Your task to perform on an android device: Go to CNN.com Image 0: 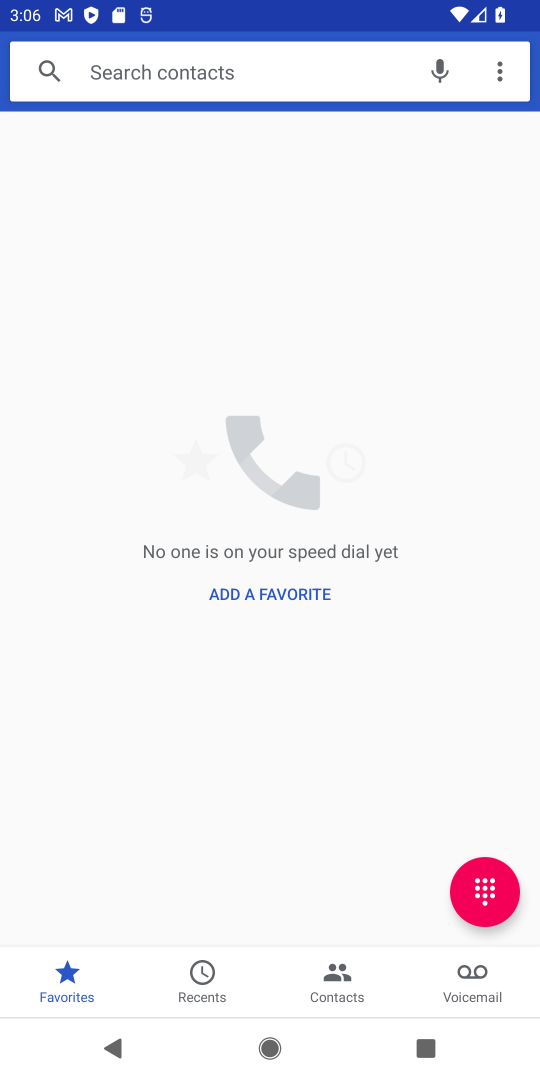
Step 0: press home button
Your task to perform on an android device: Go to CNN.com Image 1: 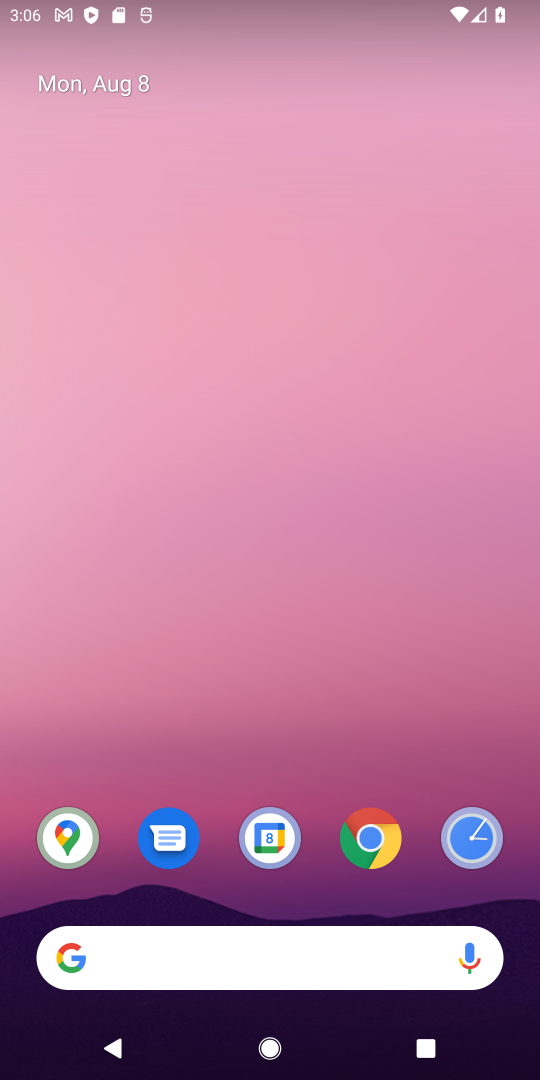
Step 1: click (364, 842)
Your task to perform on an android device: Go to CNN.com Image 2: 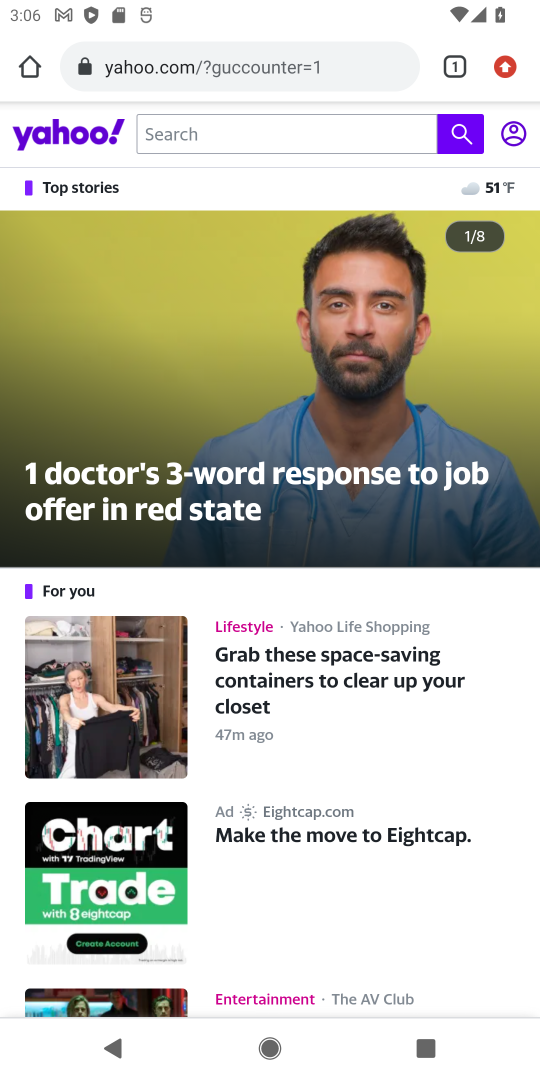
Step 2: click (299, 70)
Your task to perform on an android device: Go to CNN.com Image 3: 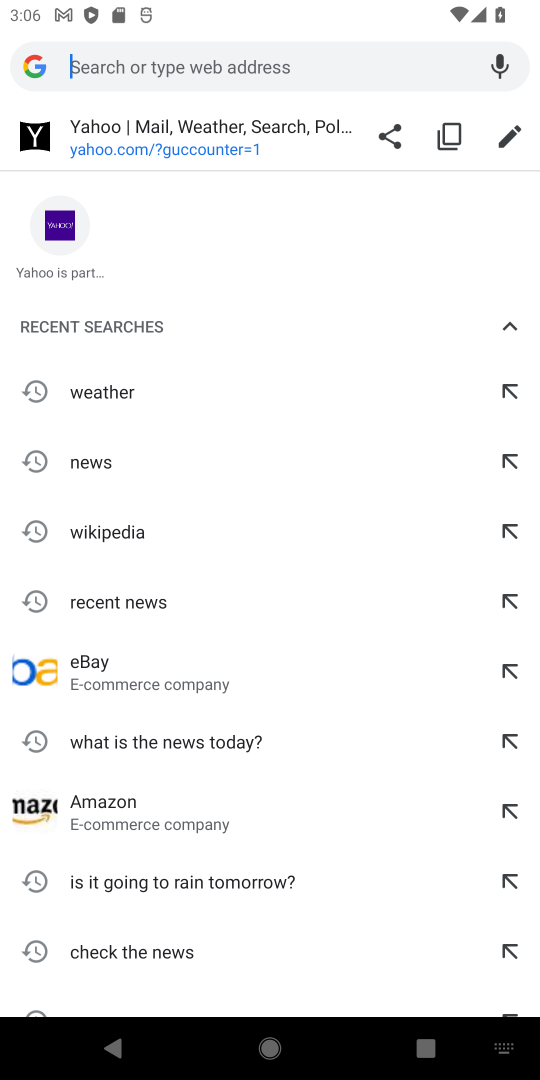
Step 3: type "CNN.com"
Your task to perform on an android device: Go to CNN.com Image 4: 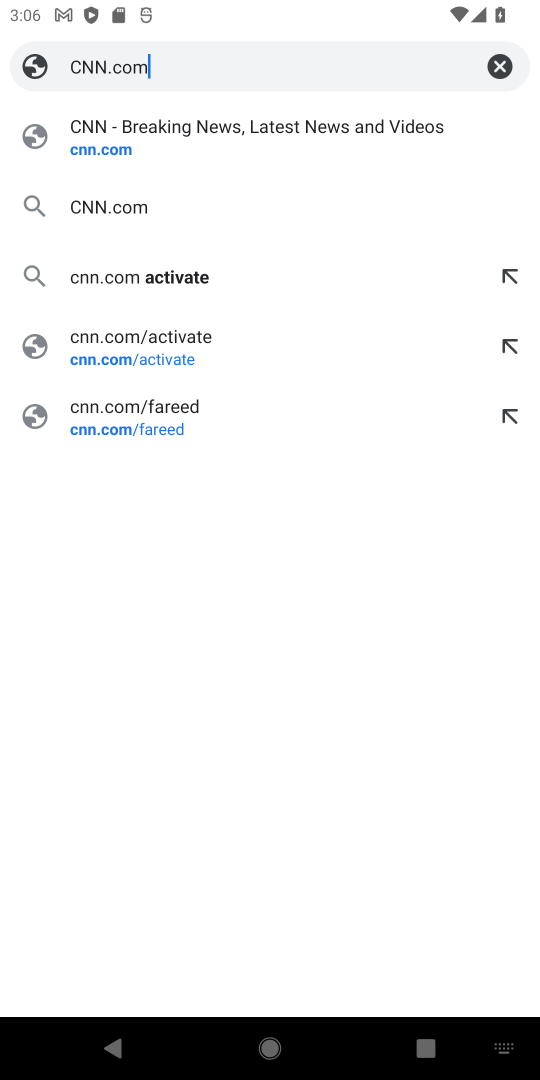
Step 4: click (131, 209)
Your task to perform on an android device: Go to CNN.com Image 5: 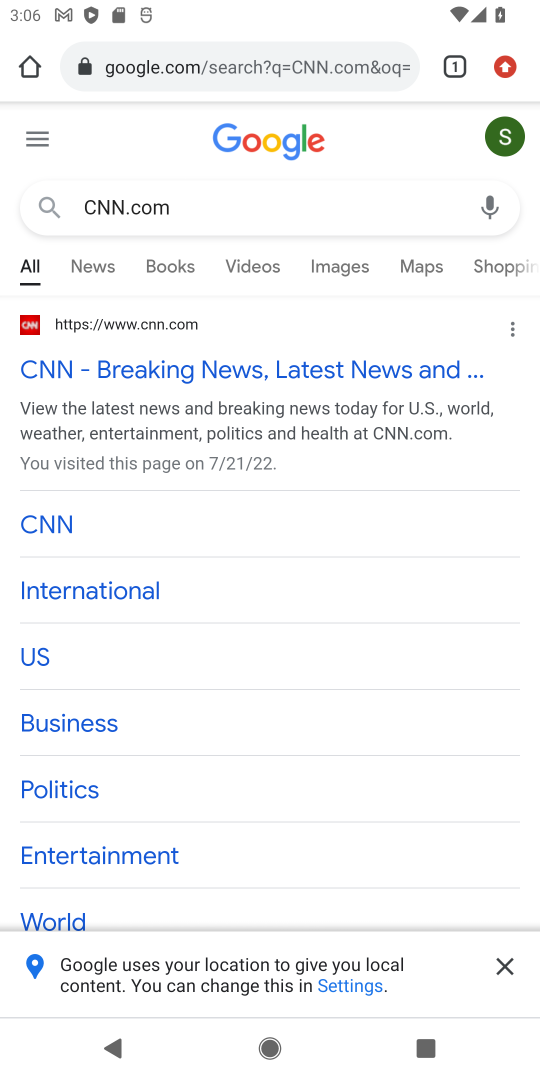
Step 5: click (133, 373)
Your task to perform on an android device: Go to CNN.com Image 6: 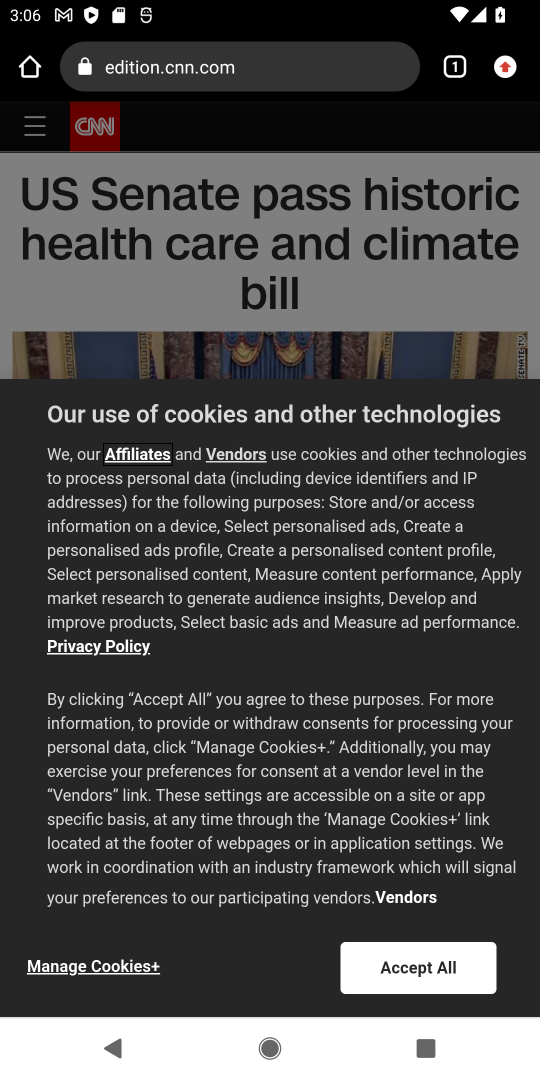
Step 6: click (442, 971)
Your task to perform on an android device: Go to CNN.com Image 7: 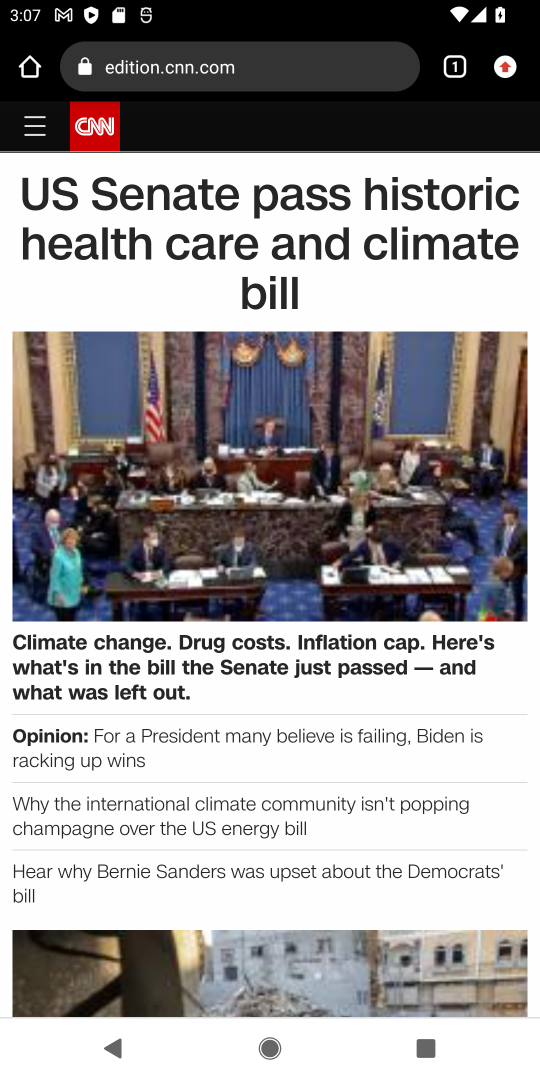
Step 7: task complete